Your task to perform on an android device: clear history in the chrome app Image 0: 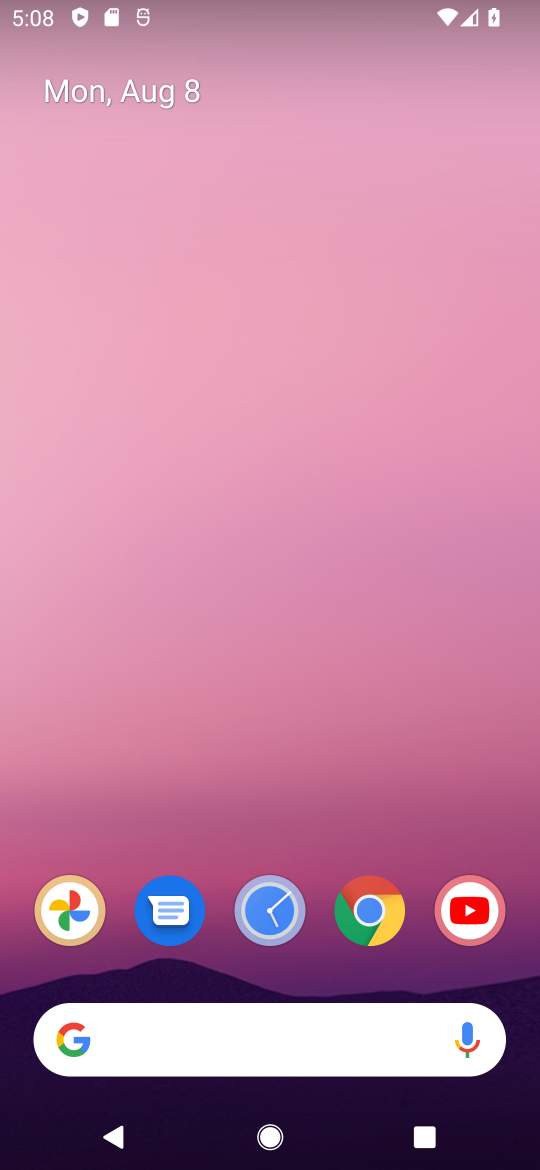
Step 0: click (372, 914)
Your task to perform on an android device: clear history in the chrome app Image 1: 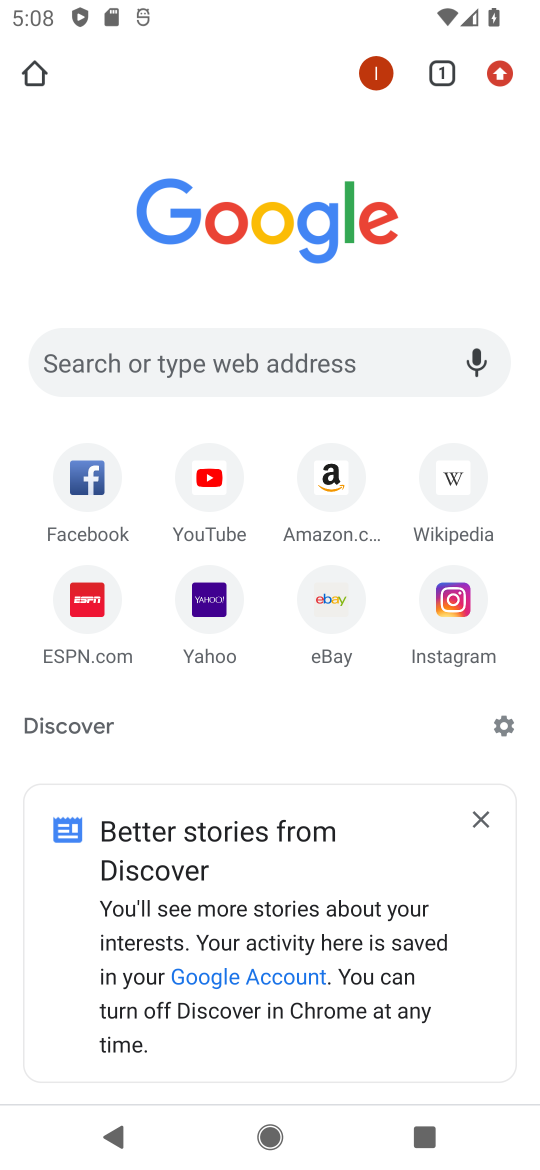
Step 1: click (497, 78)
Your task to perform on an android device: clear history in the chrome app Image 2: 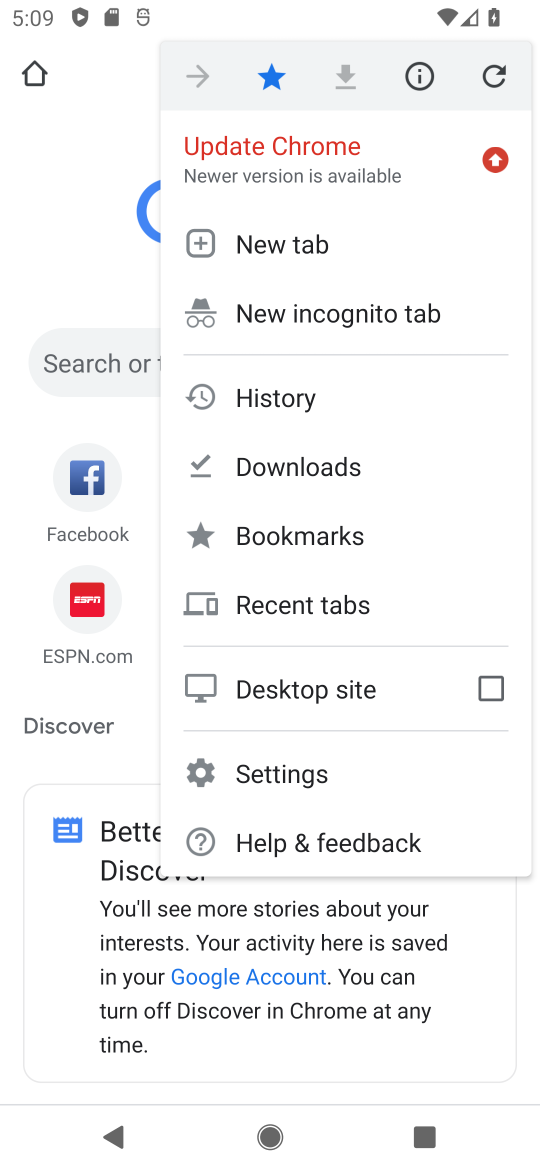
Step 2: click (287, 402)
Your task to perform on an android device: clear history in the chrome app Image 3: 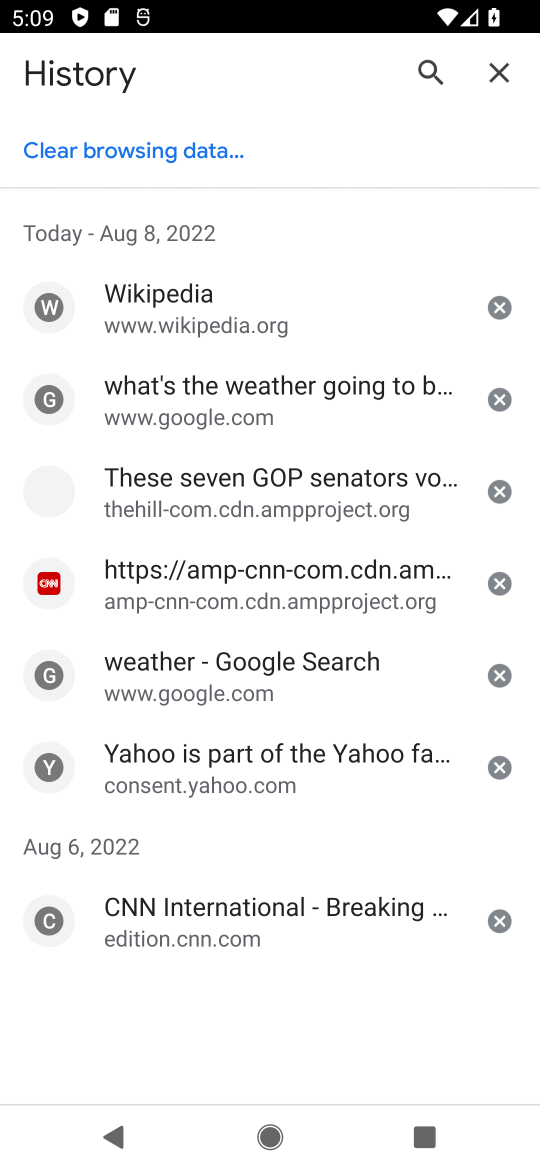
Step 3: click (195, 152)
Your task to perform on an android device: clear history in the chrome app Image 4: 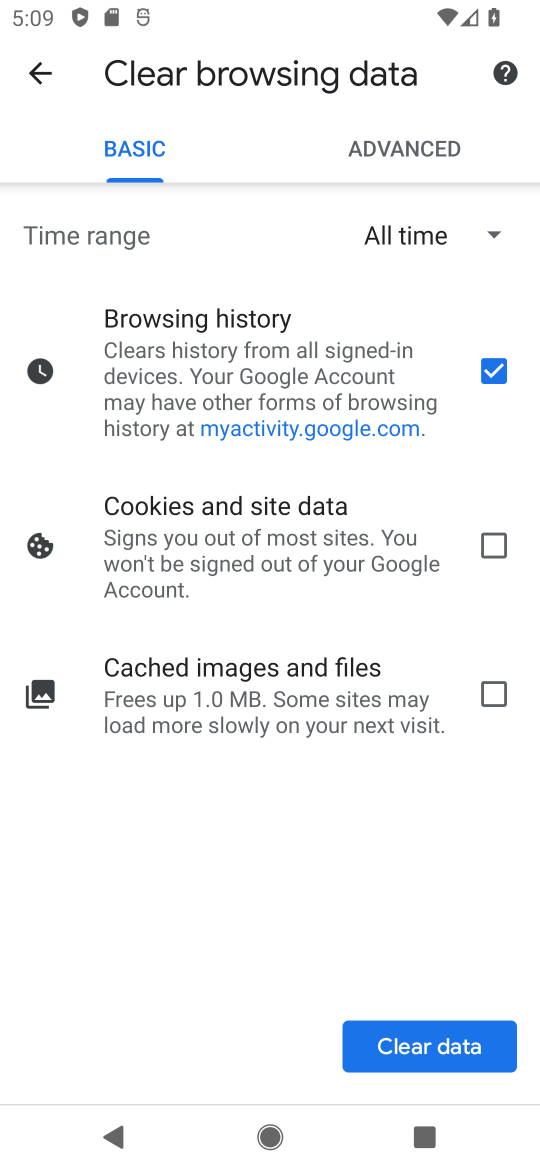
Step 4: click (488, 549)
Your task to perform on an android device: clear history in the chrome app Image 5: 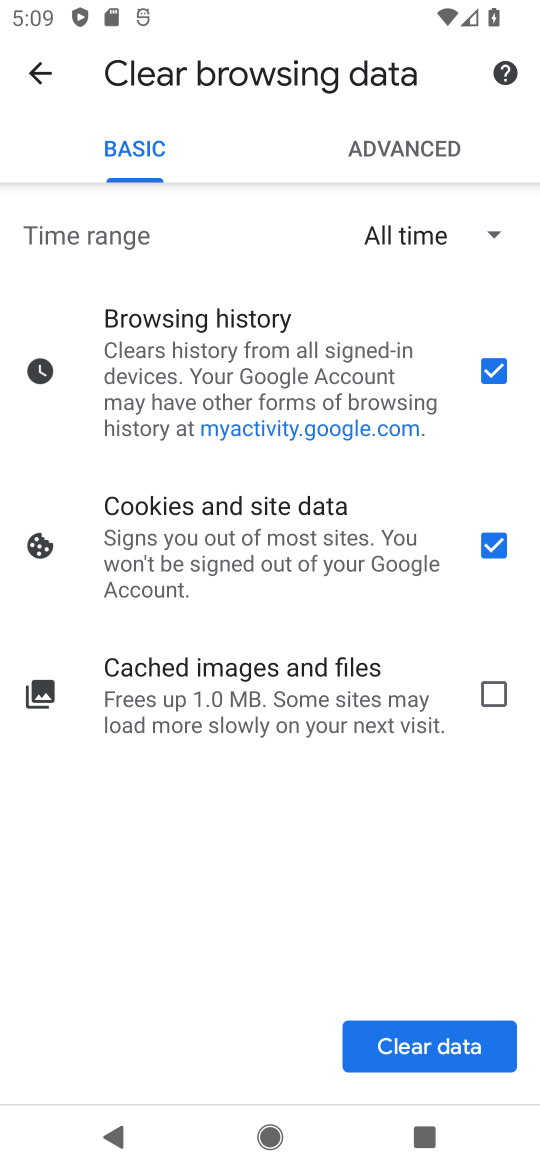
Step 5: click (500, 693)
Your task to perform on an android device: clear history in the chrome app Image 6: 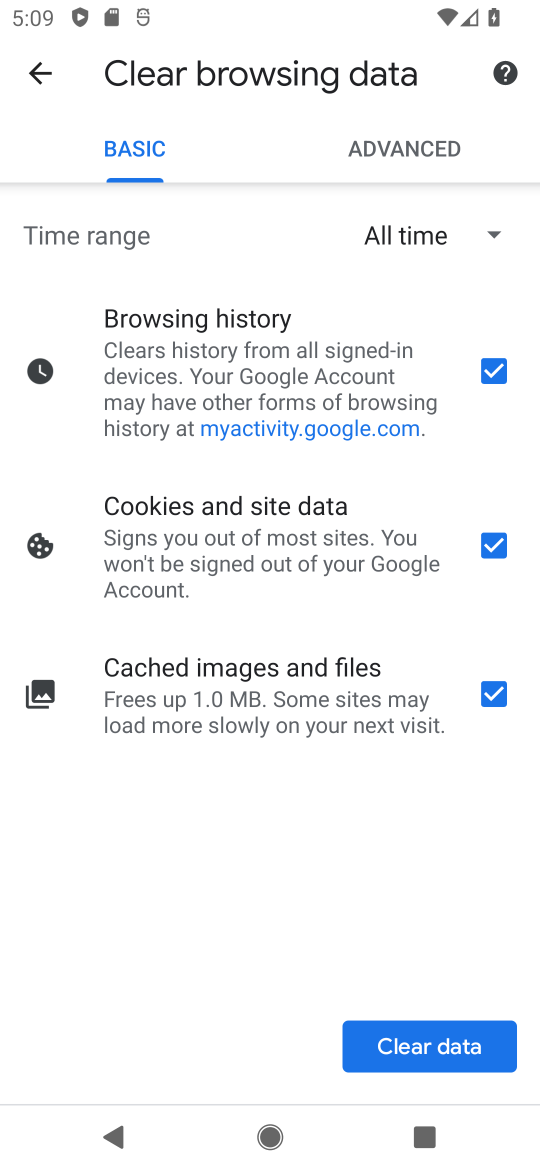
Step 6: click (457, 1038)
Your task to perform on an android device: clear history in the chrome app Image 7: 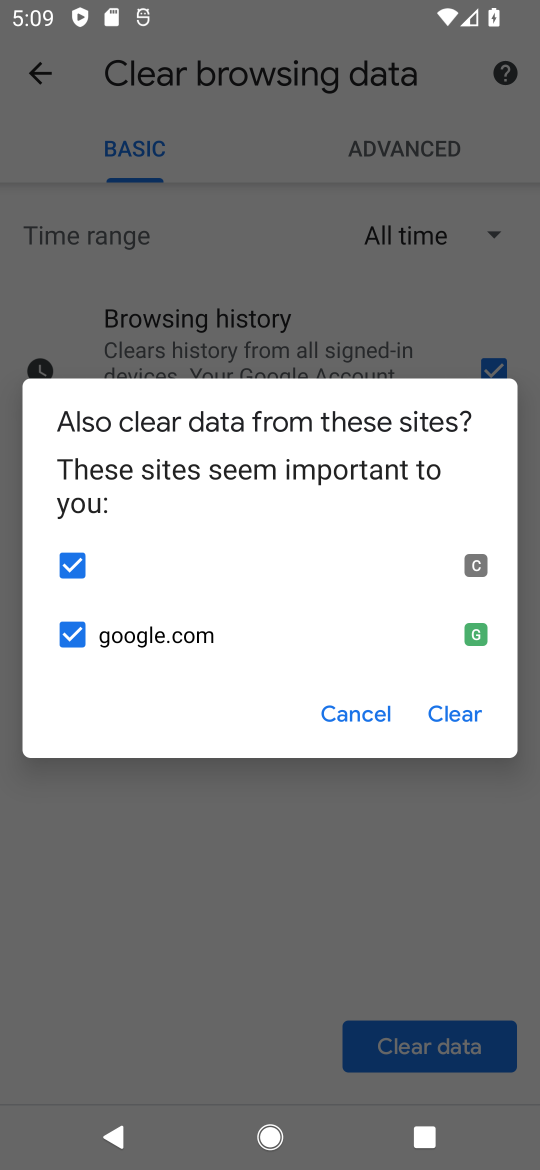
Step 7: click (464, 711)
Your task to perform on an android device: clear history in the chrome app Image 8: 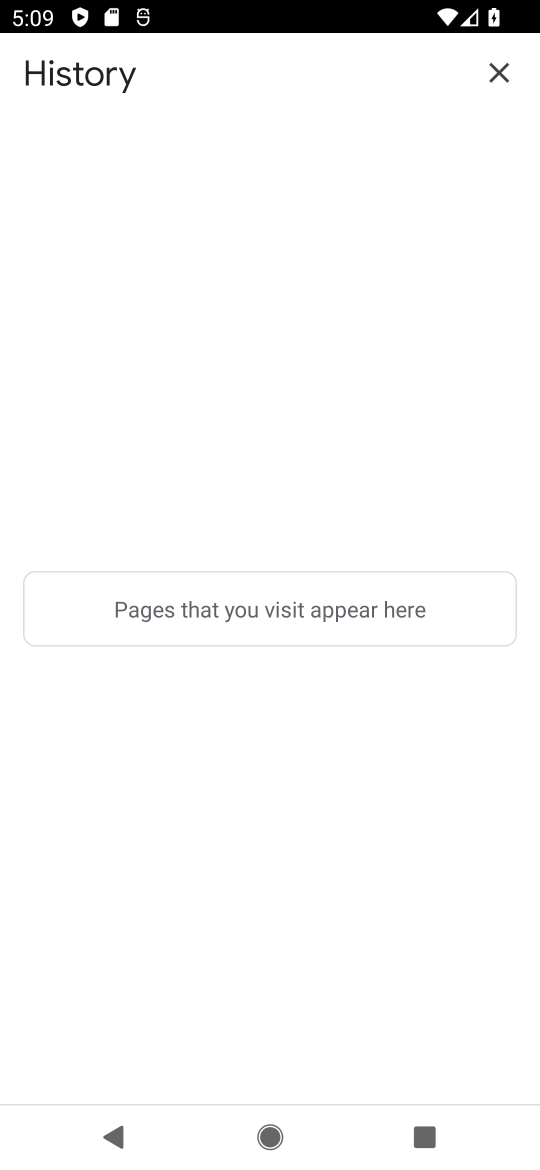
Step 8: task complete